Your task to perform on an android device: make emails show in primary in the gmail app Image 0: 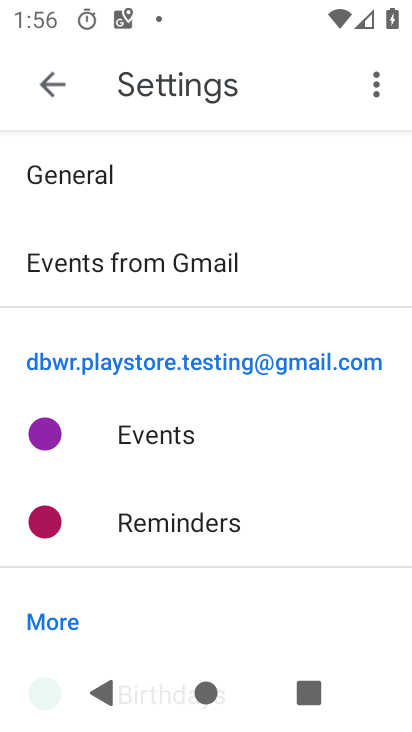
Step 0: press home button
Your task to perform on an android device: make emails show in primary in the gmail app Image 1: 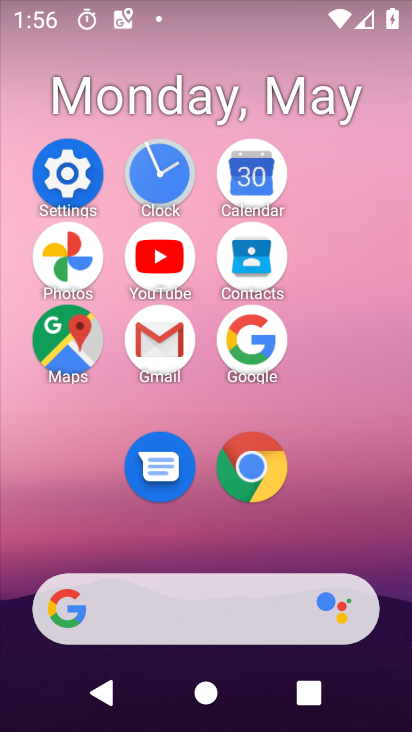
Step 1: click (168, 341)
Your task to perform on an android device: make emails show in primary in the gmail app Image 2: 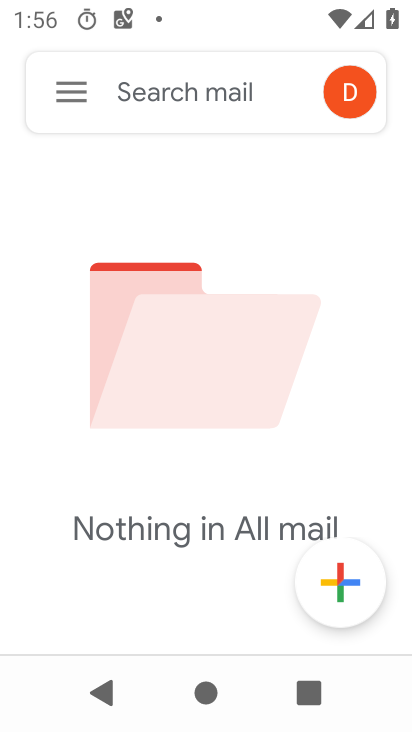
Step 2: click (61, 114)
Your task to perform on an android device: make emails show in primary in the gmail app Image 3: 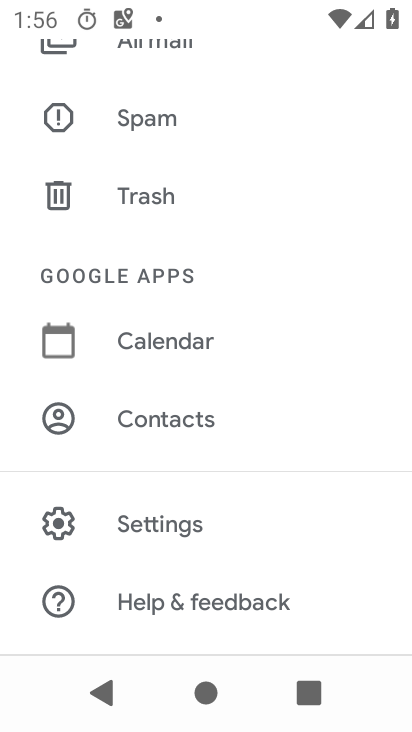
Step 3: click (191, 532)
Your task to perform on an android device: make emails show in primary in the gmail app Image 4: 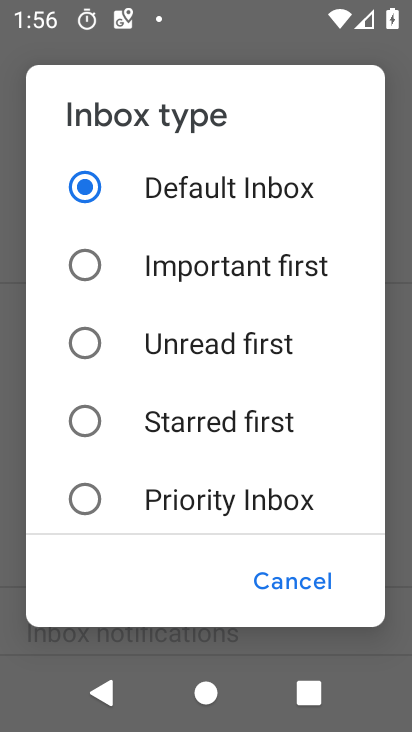
Step 4: click (285, 579)
Your task to perform on an android device: make emails show in primary in the gmail app Image 5: 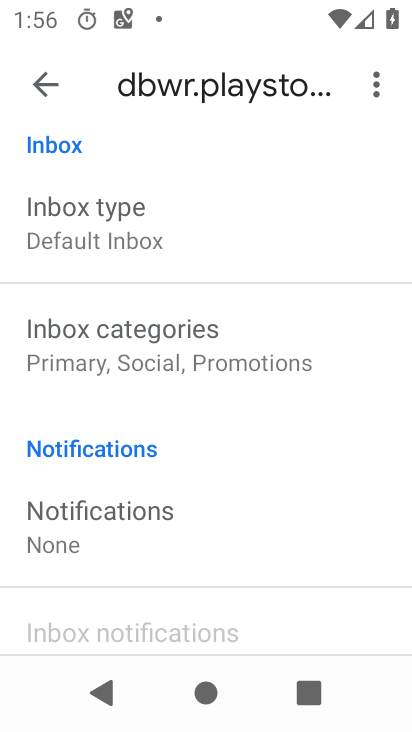
Step 5: click (246, 365)
Your task to perform on an android device: make emails show in primary in the gmail app Image 6: 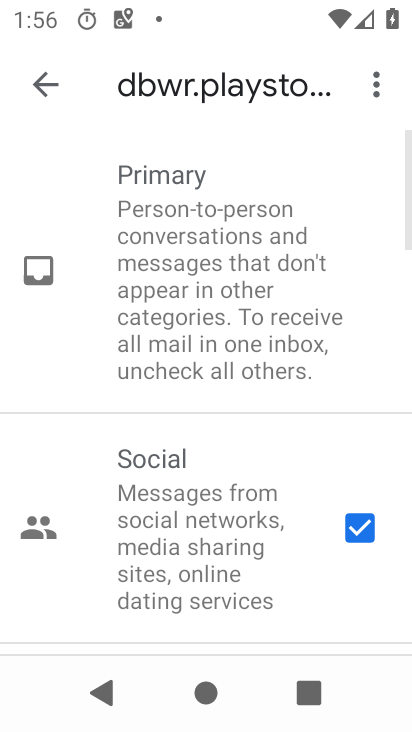
Step 6: click (367, 535)
Your task to perform on an android device: make emails show in primary in the gmail app Image 7: 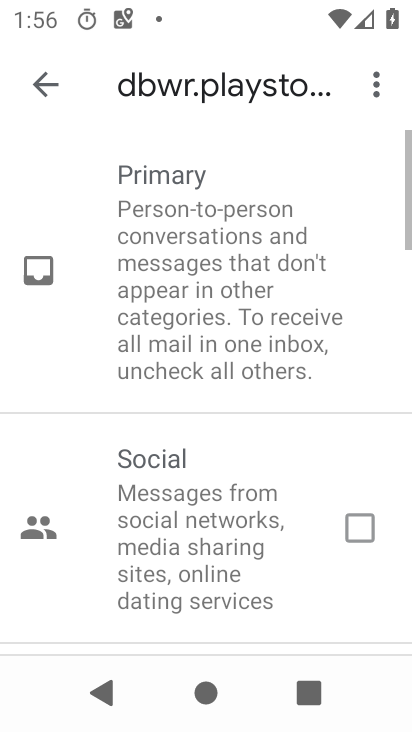
Step 7: drag from (297, 525) to (300, 178)
Your task to perform on an android device: make emails show in primary in the gmail app Image 8: 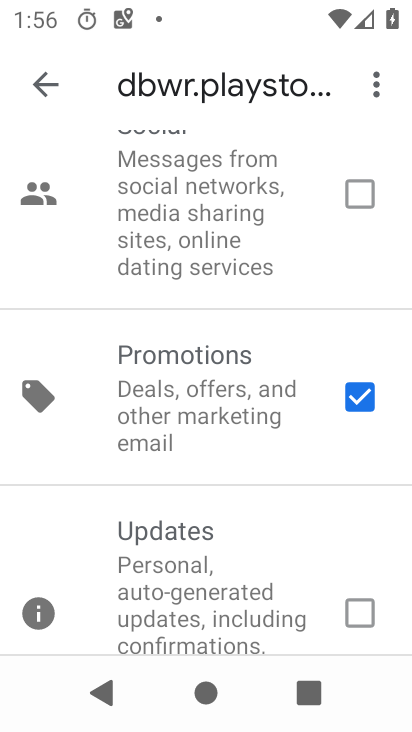
Step 8: click (353, 396)
Your task to perform on an android device: make emails show in primary in the gmail app Image 9: 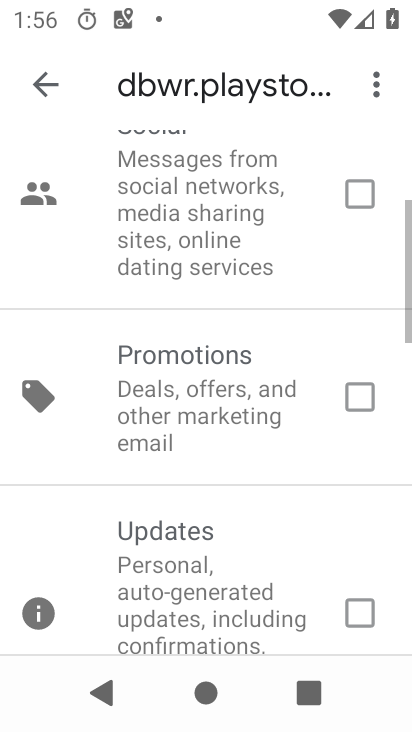
Step 9: drag from (219, 499) to (212, 152)
Your task to perform on an android device: make emails show in primary in the gmail app Image 10: 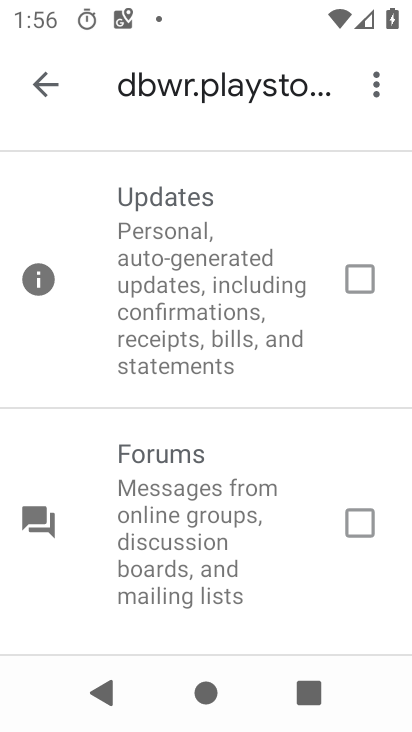
Step 10: click (57, 84)
Your task to perform on an android device: make emails show in primary in the gmail app Image 11: 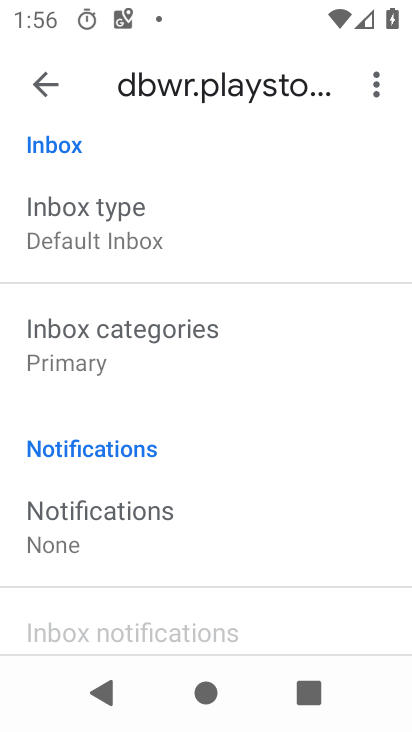
Step 11: task complete